Your task to perform on an android device: Go to wifi settings Image 0: 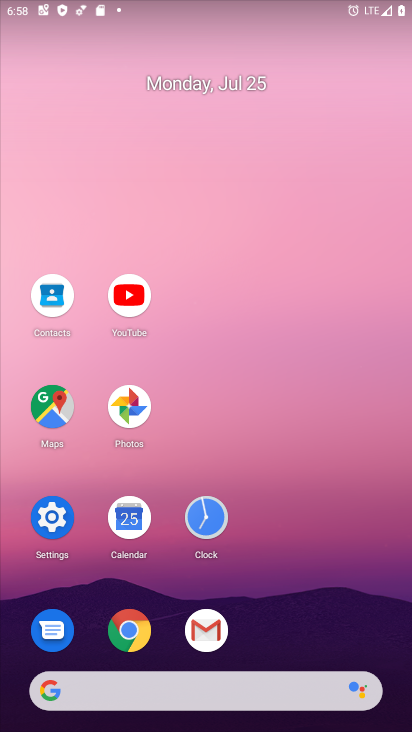
Step 0: click (54, 516)
Your task to perform on an android device: Go to wifi settings Image 1: 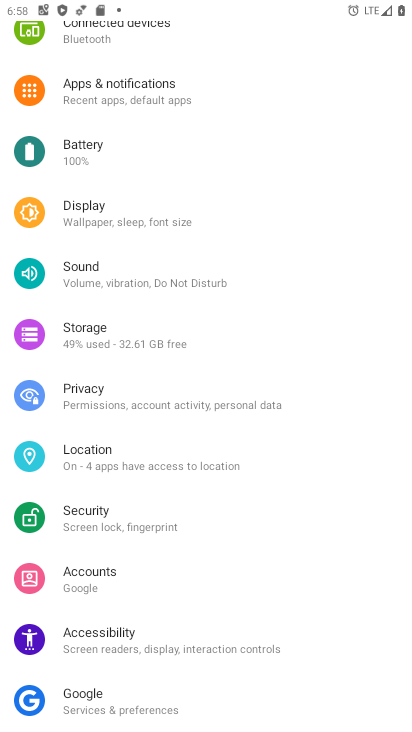
Step 1: drag from (257, 96) to (239, 528)
Your task to perform on an android device: Go to wifi settings Image 2: 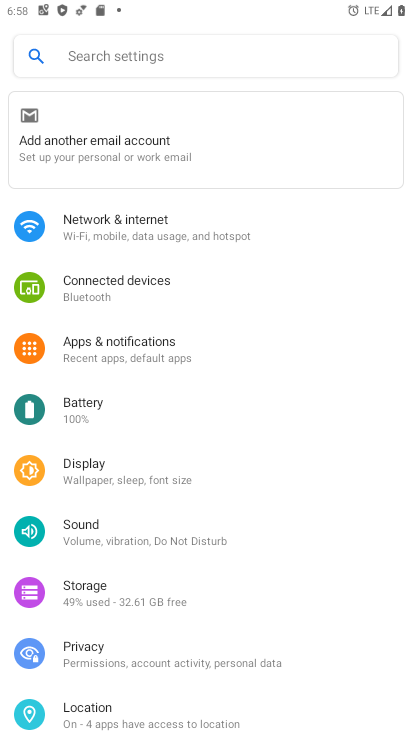
Step 2: click (113, 229)
Your task to perform on an android device: Go to wifi settings Image 3: 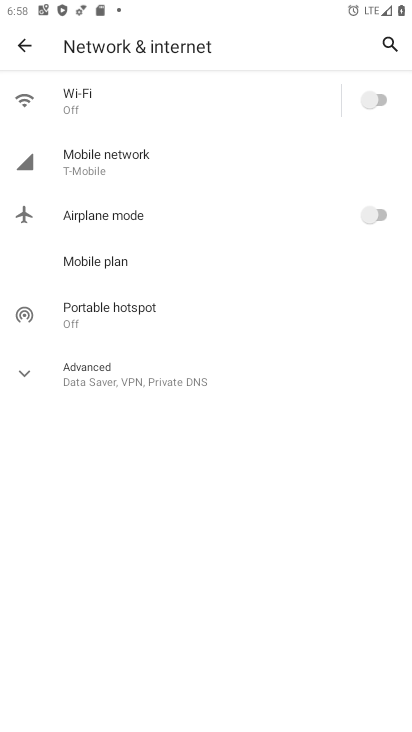
Step 3: click (67, 98)
Your task to perform on an android device: Go to wifi settings Image 4: 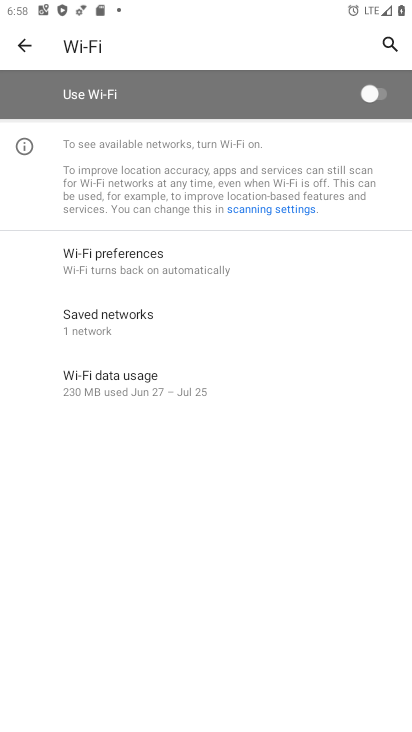
Step 4: task complete